Your task to perform on an android device: What's the US dollar exchange rateagainst the Swiss Franc? Image 0: 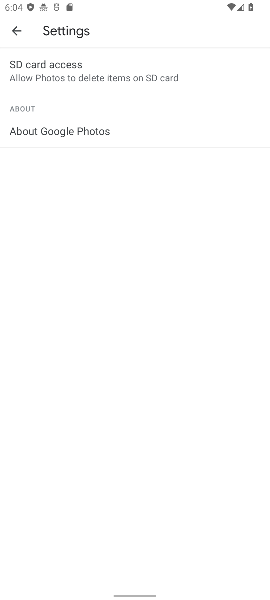
Step 0: press home button
Your task to perform on an android device: What's the US dollar exchange rateagainst the Swiss Franc? Image 1: 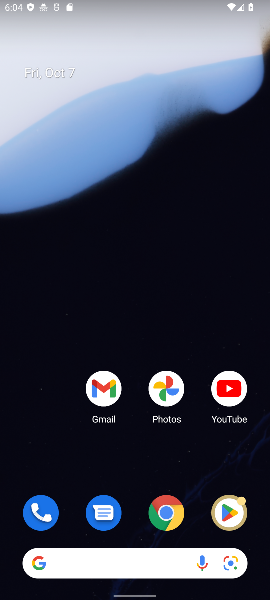
Step 1: click (111, 561)
Your task to perform on an android device: What's the US dollar exchange rateagainst the Swiss Franc? Image 2: 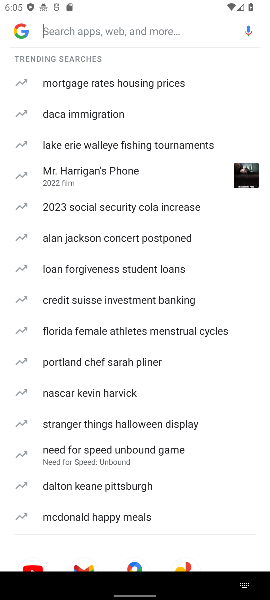
Step 2: type "What's the US dollar exchange rateagainst the Swiss Franc?"
Your task to perform on an android device: What's the US dollar exchange rateagainst the Swiss Franc? Image 3: 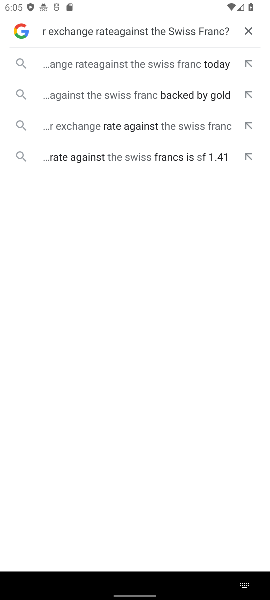
Step 3: click (109, 123)
Your task to perform on an android device: What's the US dollar exchange rateagainst the Swiss Franc? Image 4: 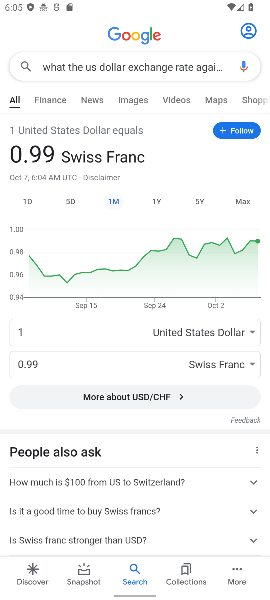
Step 4: task complete